Your task to perform on an android device: Open settings on Google Maps Image 0: 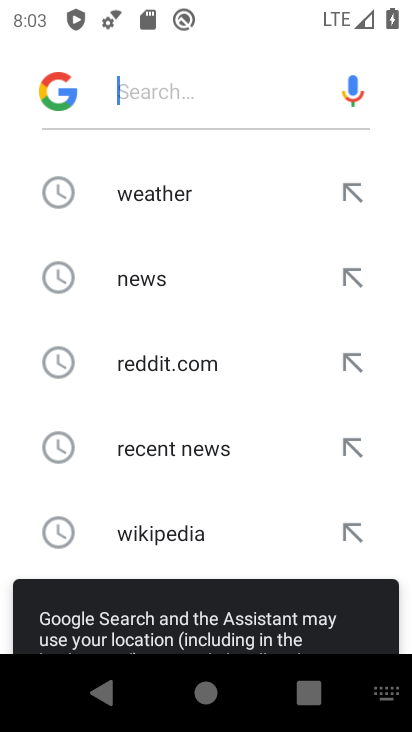
Step 0: press home button
Your task to perform on an android device: Open settings on Google Maps Image 1: 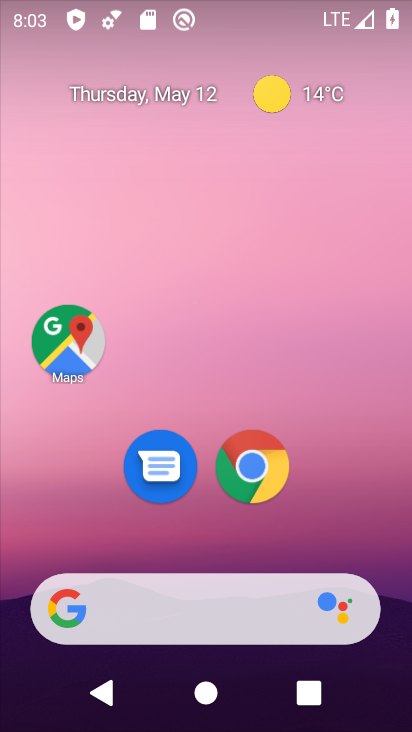
Step 1: click (62, 349)
Your task to perform on an android device: Open settings on Google Maps Image 2: 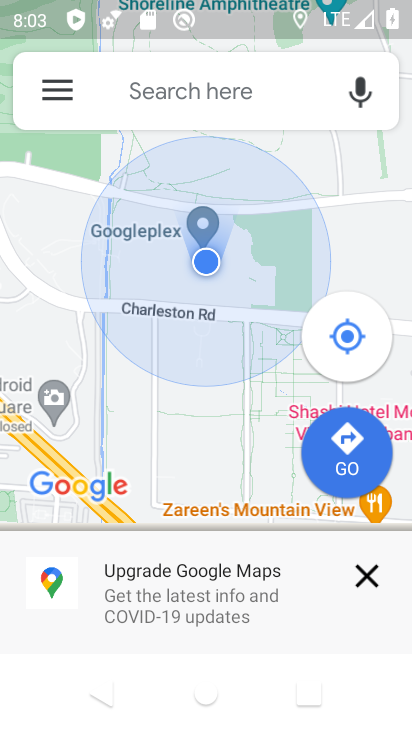
Step 2: click (51, 84)
Your task to perform on an android device: Open settings on Google Maps Image 3: 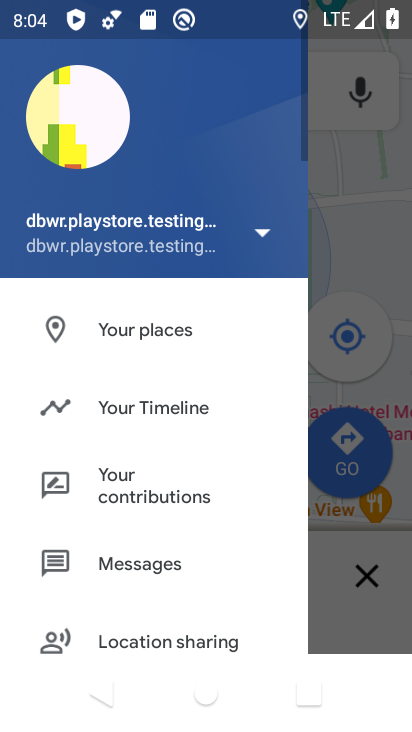
Step 3: drag from (149, 612) to (193, 27)
Your task to perform on an android device: Open settings on Google Maps Image 4: 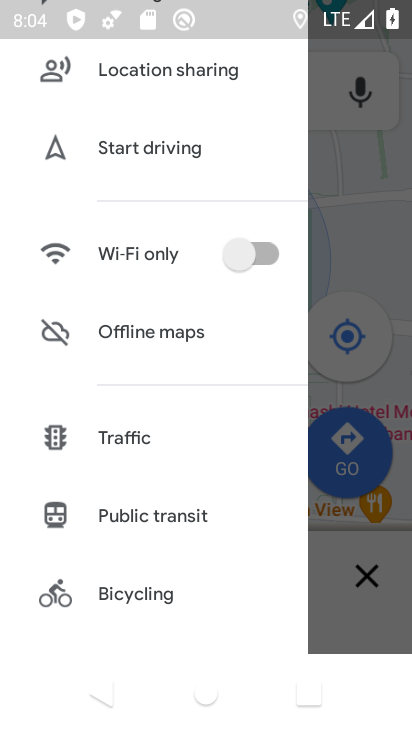
Step 4: drag from (137, 566) to (185, 79)
Your task to perform on an android device: Open settings on Google Maps Image 5: 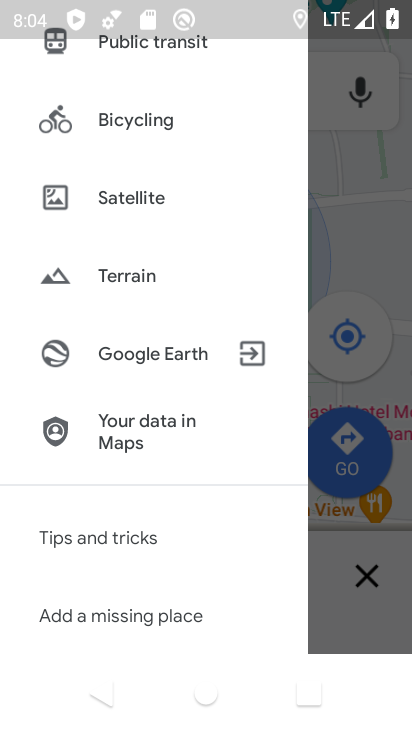
Step 5: drag from (115, 553) to (160, 56)
Your task to perform on an android device: Open settings on Google Maps Image 6: 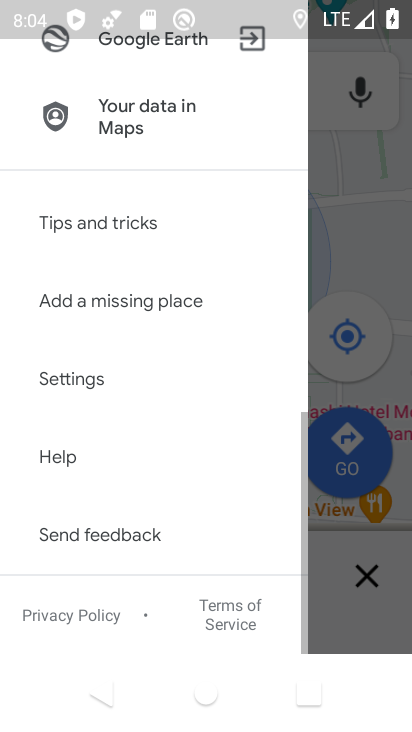
Step 6: click (93, 379)
Your task to perform on an android device: Open settings on Google Maps Image 7: 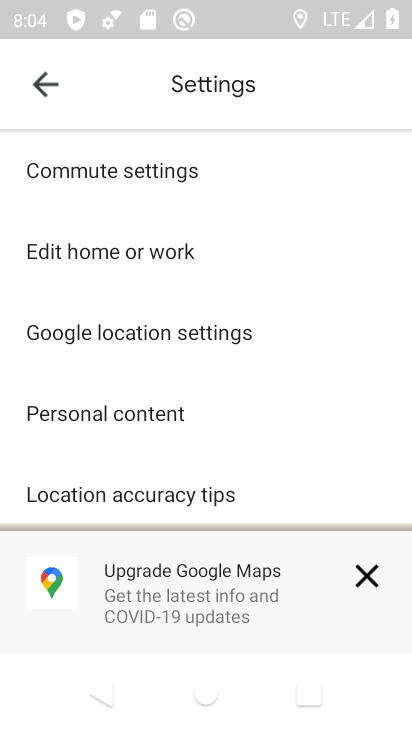
Step 7: click (355, 572)
Your task to perform on an android device: Open settings on Google Maps Image 8: 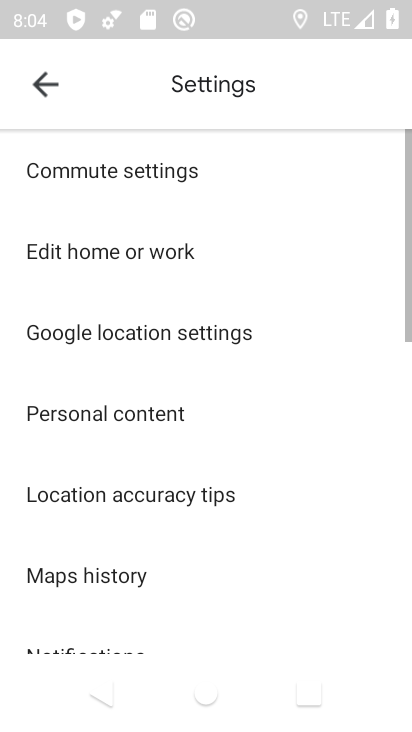
Step 8: task complete